Your task to perform on an android device: Open calendar and show me the third week of next month Image 0: 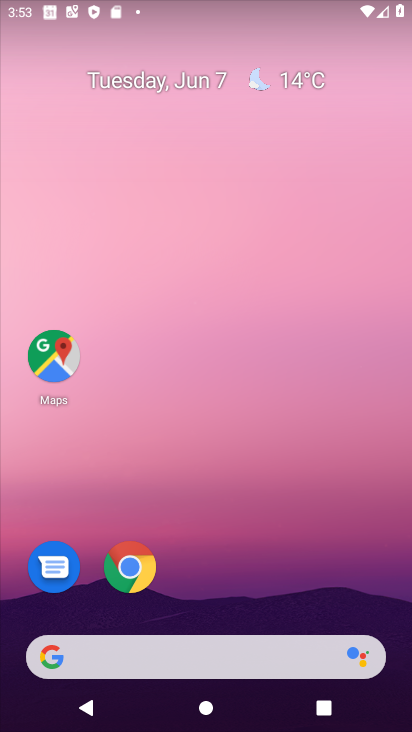
Step 0: drag from (181, 597) to (210, 127)
Your task to perform on an android device: Open calendar and show me the third week of next month Image 1: 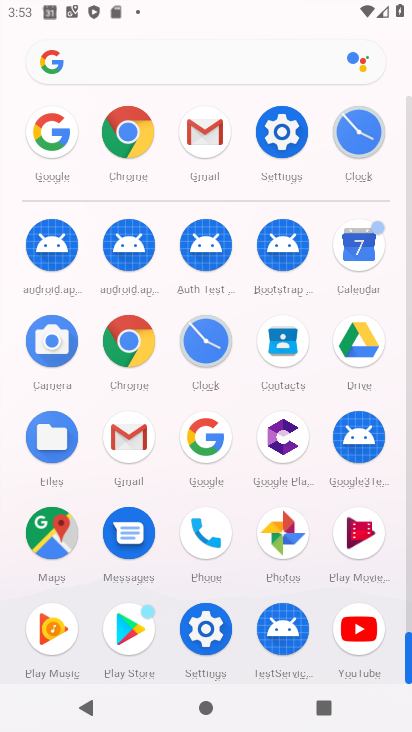
Step 1: click (365, 268)
Your task to perform on an android device: Open calendar and show me the third week of next month Image 2: 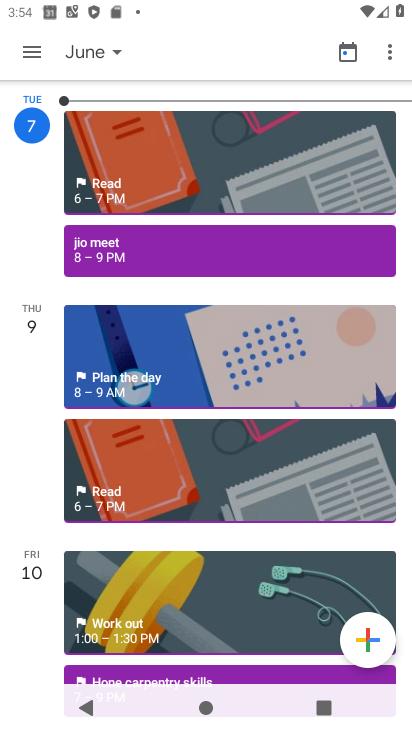
Step 2: click (100, 56)
Your task to perform on an android device: Open calendar and show me the third week of next month Image 3: 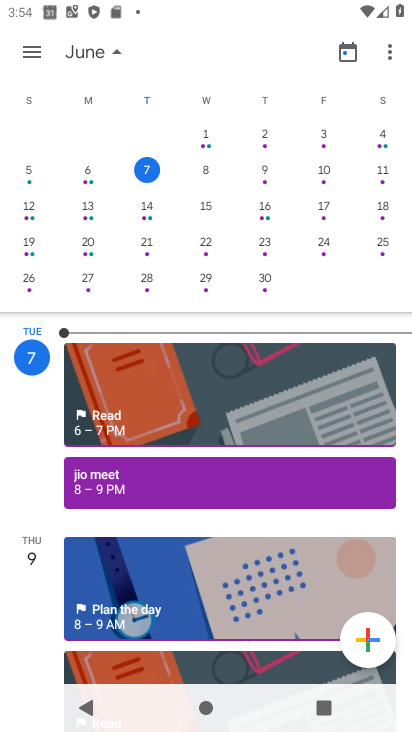
Step 3: drag from (337, 188) to (38, 195)
Your task to perform on an android device: Open calendar and show me the third week of next month Image 4: 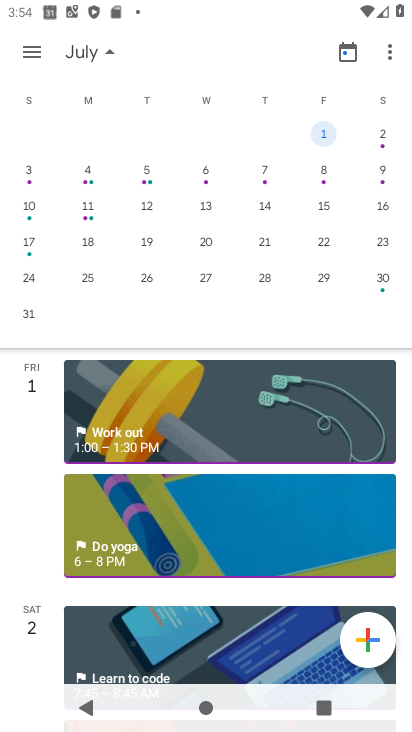
Step 4: click (14, 206)
Your task to perform on an android device: Open calendar and show me the third week of next month Image 5: 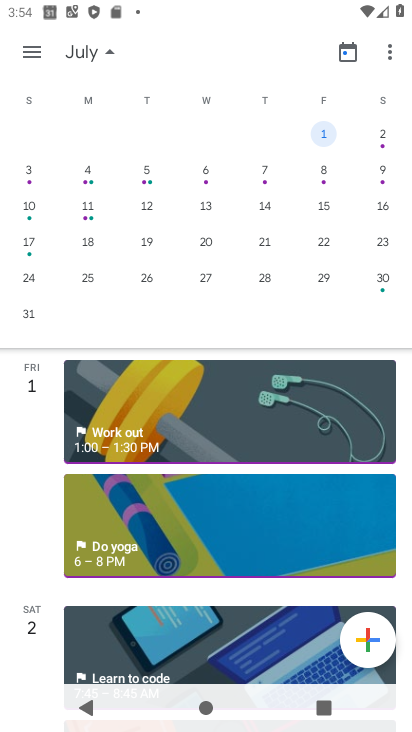
Step 5: click (24, 210)
Your task to perform on an android device: Open calendar and show me the third week of next month Image 6: 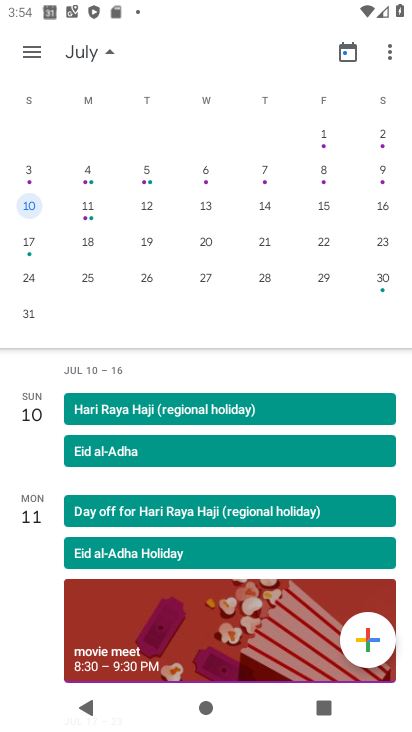
Step 6: task complete